Your task to perform on an android device: Open sound settings Image 0: 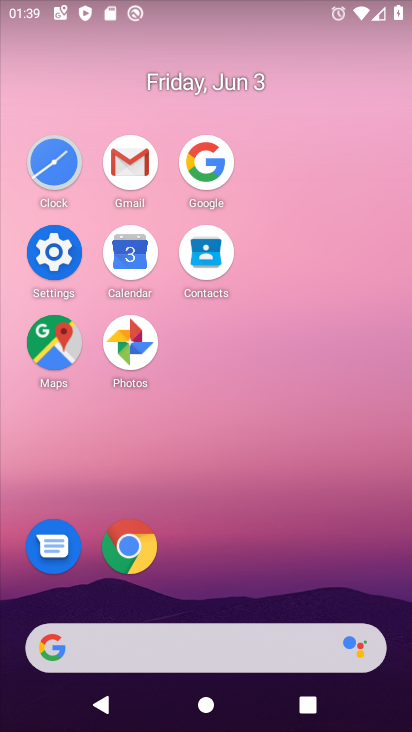
Step 0: click (60, 246)
Your task to perform on an android device: Open sound settings Image 1: 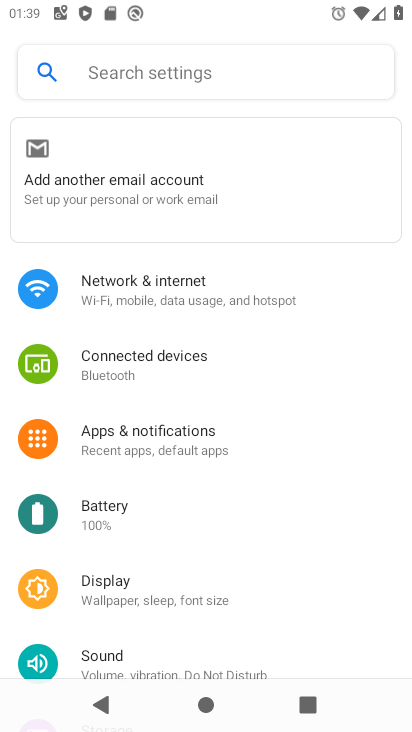
Step 1: drag from (176, 614) to (208, 273)
Your task to perform on an android device: Open sound settings Image 2: 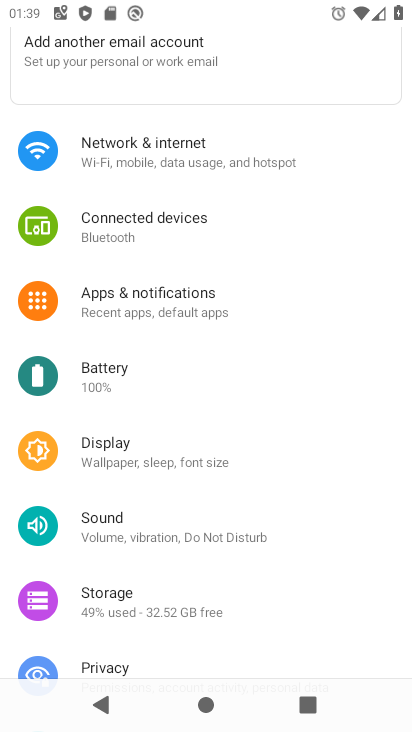
Step 2: click (150, 508)
Your task to perform on an android device: Open sound settings Image 3: 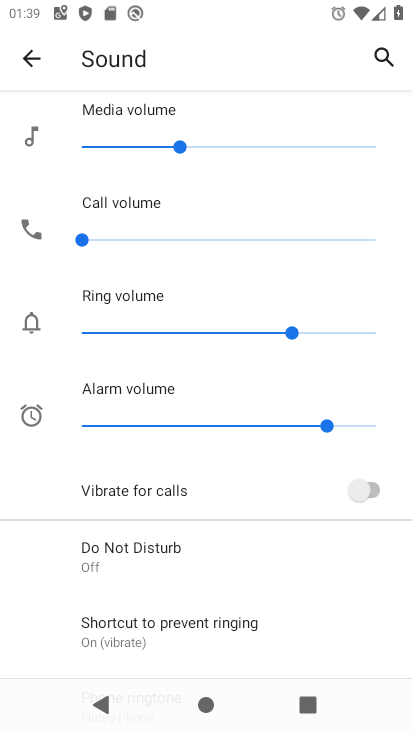
Step 3: task complete